Your task to perform on an android device: open a bookmark in the chrome app Image 0: 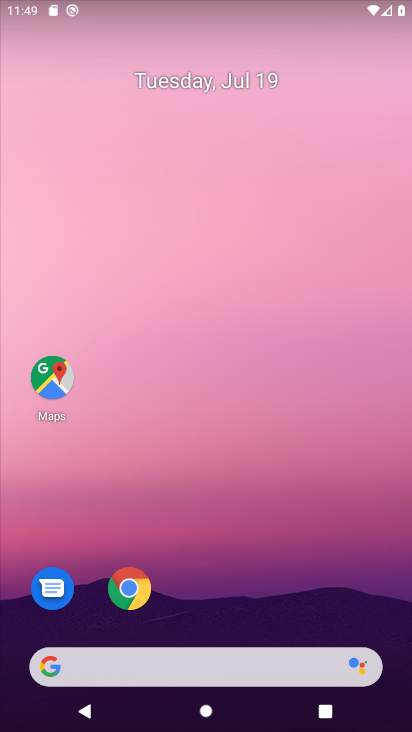
Step 0: click (122, 580)
Your task to perform on an android device: open a bookmark in the chrome app Image 1: 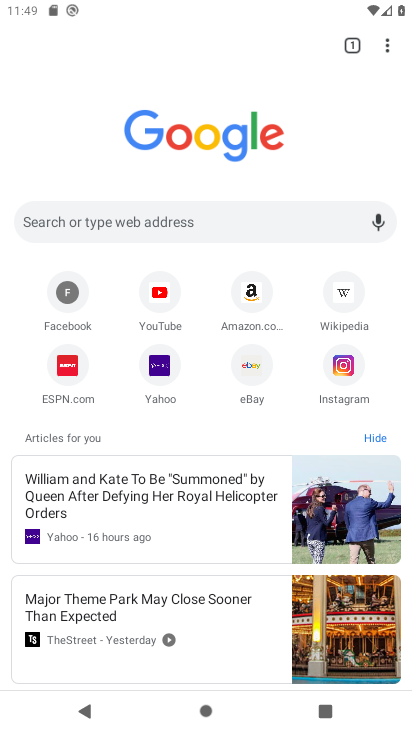
Step 1: click (387, 47)
Your task to perform on an android device: open a bookmark in the chrome app Image 2: 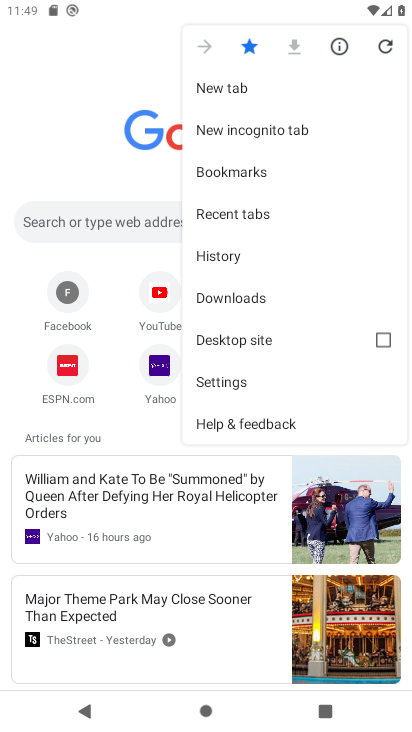
Step 2: click (246, 172)
Your task to perform on an android device: open a bookmark in the chrome app Image 3: 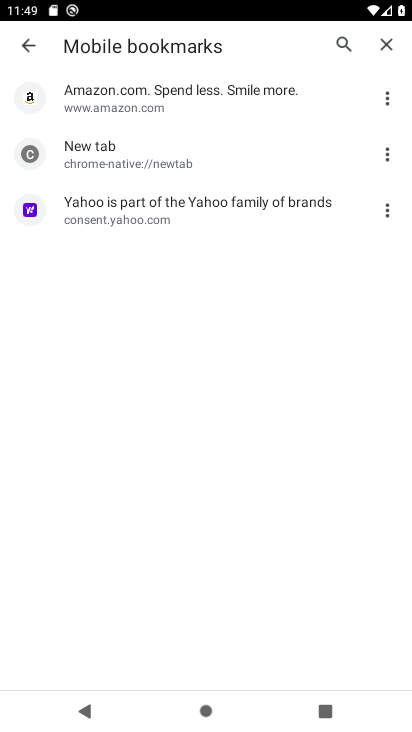
Step 3: click (127, 102)
Your task to perform on an android device: open a bookmark in the chrome app Image 4: 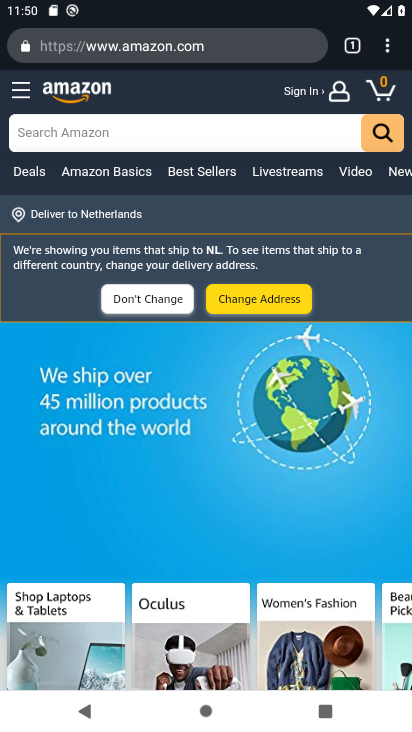
Step 4: click (392, 44)
Your task to perform on an android device: open a bookmark in the chrome app Image 5: 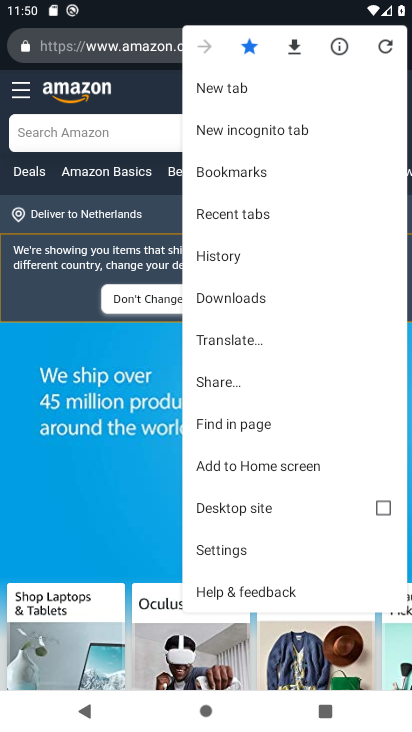
Step 5: click (239, 176)
Your task to perform on an android device: open a bookmark in the chrome app Image 6: 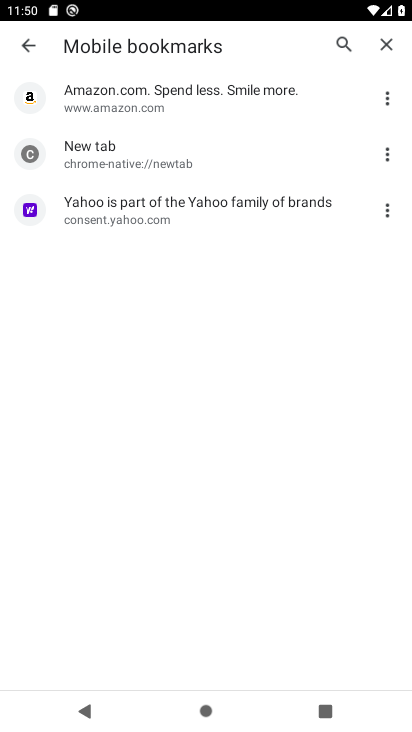
Step 6: click (174, 220)
Your task to perform on an android device: open a bookmark in the chrome app Image 7: 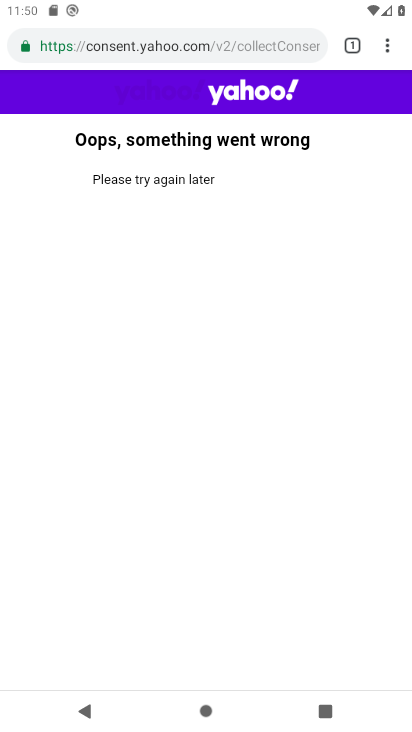
Step 7: task complete